Your task to perform on an android device: Go to display settings Image 0: 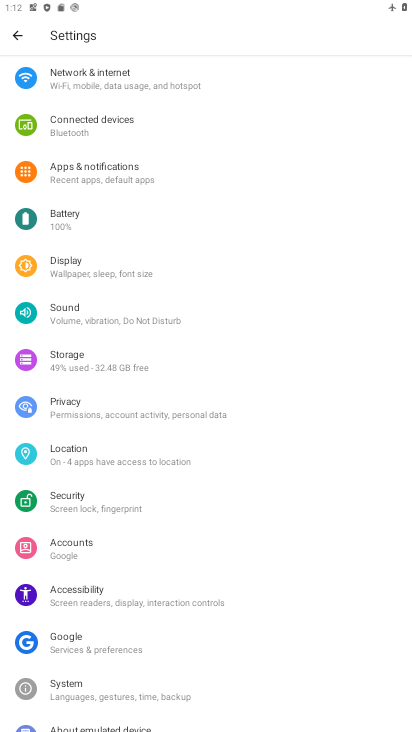
Step 0: click (118, 272)
Your task to perform on an android device: Go to display settings Image 1: 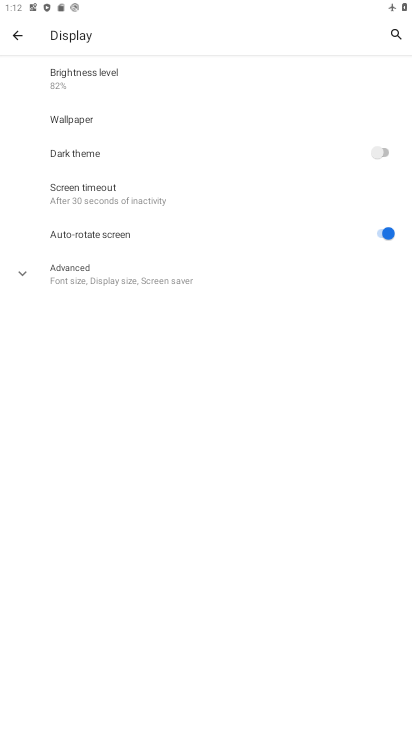
Step 1: task complete